Your task to perform on an android device: Show me productivity apps on the Play Store Image 0: 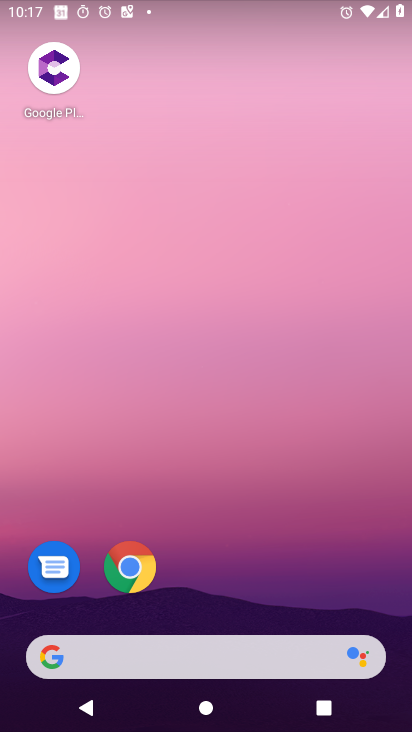
Step 0: drag from (187, 599) to (313, 0)
Your task to perform on an android device: Show me productivity apps on the Play Store Image 1: 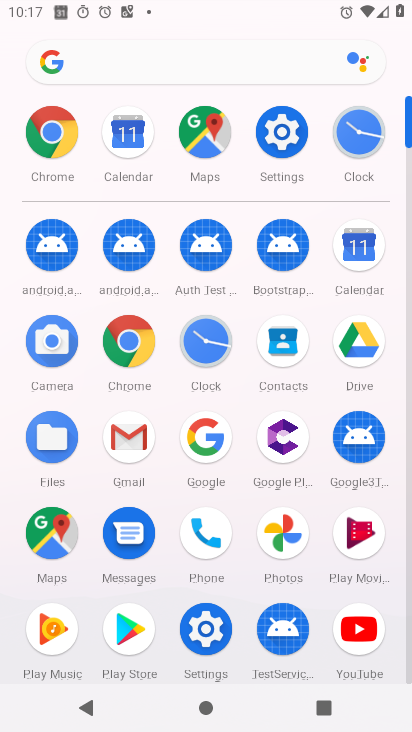
Step 1: click (120, 627)
Your task to perform on an android device: Show me productivity apps on the Play Store Image 2: 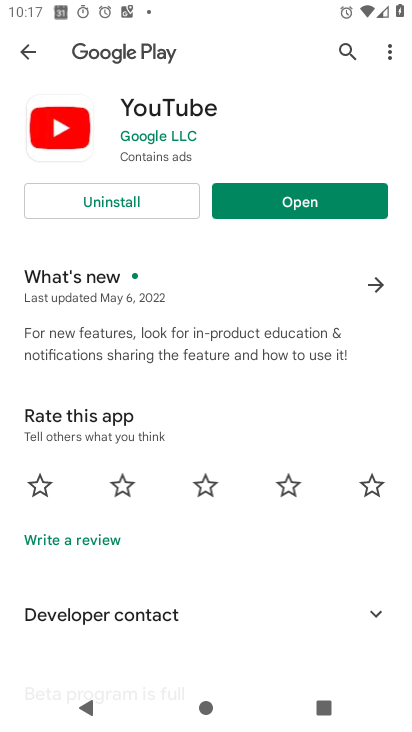
Step 2: click (30, 52)
Your task to perform on an android device: Show me productivity apps on the Play Store Image 3: 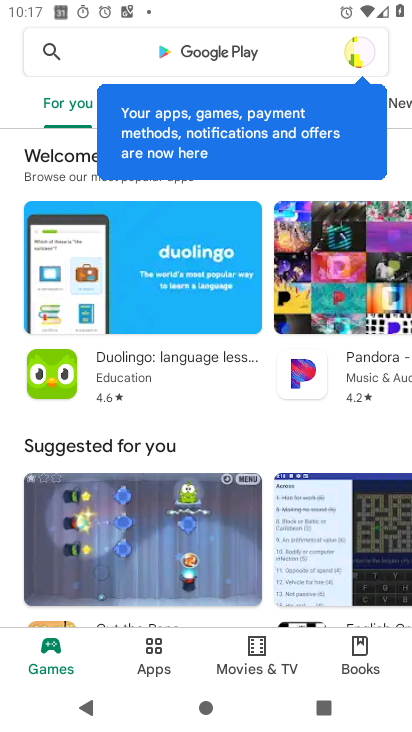
Step 3: click (153, 656)
Your task to perform on an android device: Show me productivity apps on the Play Store Image 4: 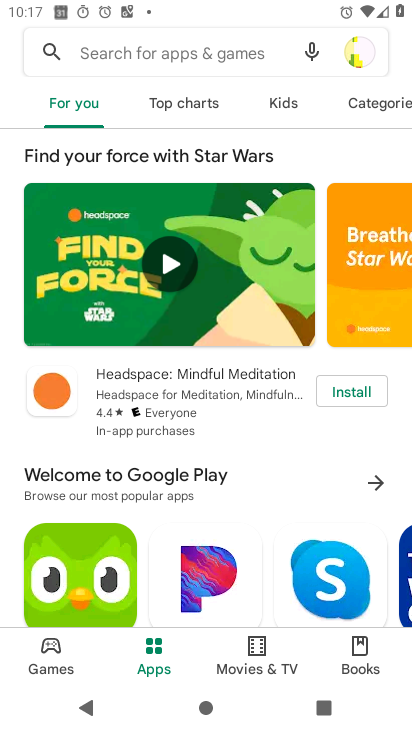
Step 4: click (364, 104)
Your task to perform on an android device: Show me productivity apps on the Play Store Image 5: 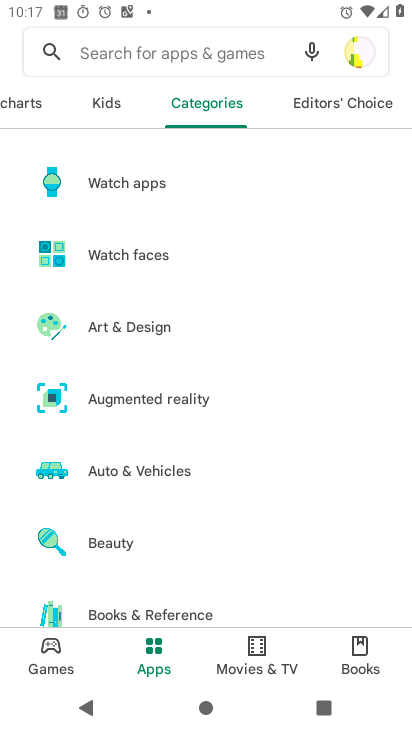
Step 5: drag from (137, 543) to (221, 0)
Your task to perform on an android device: Show me productivity apps on the Play Store Image 6: 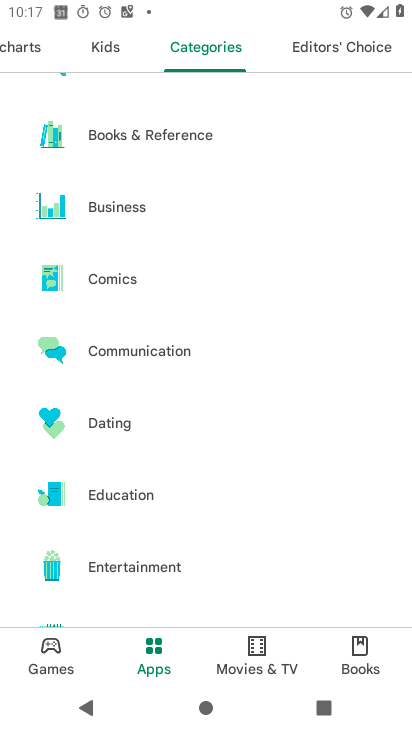
Step 6: drag from (152, 438) to (206, 107)
Your task to perform on an android device: Show me productivity apps on the Play Store Image 7: 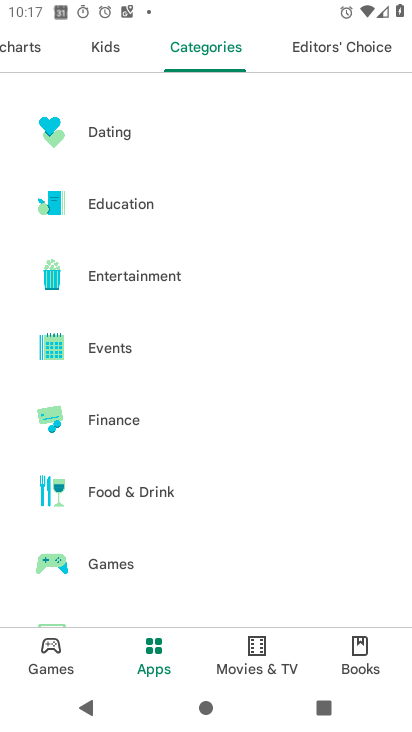
Step 7: drag from (93, 536) to (180, 55)
Your task to perform on an android device: Show me productivity apps on the Play Store Image 8: 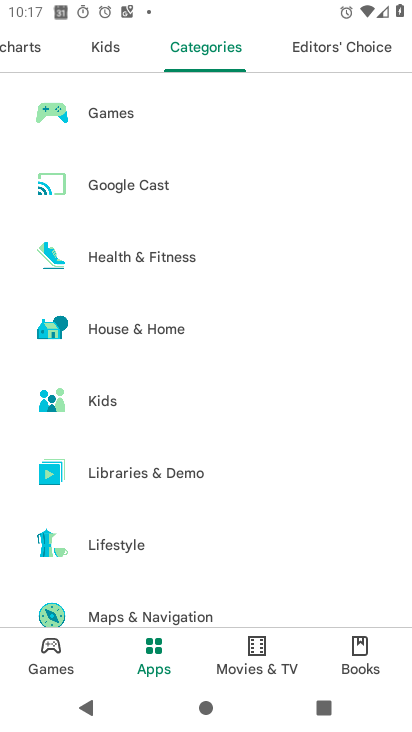
Step 8: drag from (126, 540) to (217, 27)
Your task to perform on an android device: Show me productivity apps on the Play Store Image 9: 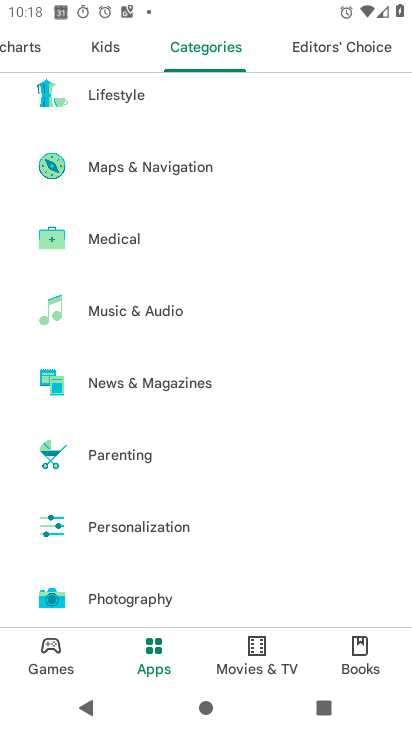
Step 9: drag from (124, 561) to (176, 252)
Your task to perform on an android device: Show me productivity apps on the Play Store Image 10: 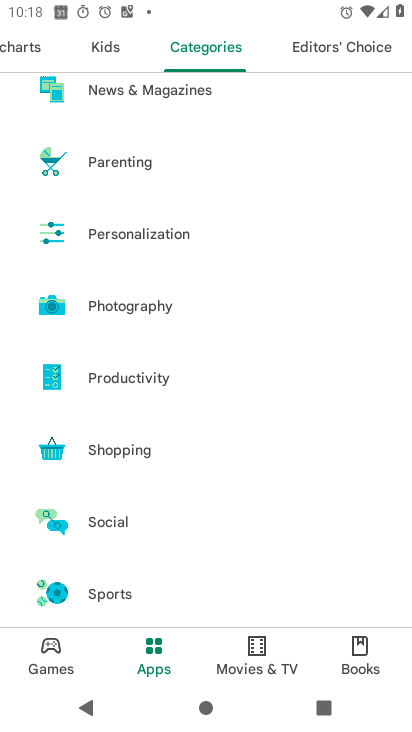
Step 10: click (133, 384)
Your task to perform on an android device: Show me productivity apps on the Play Store Image 11: 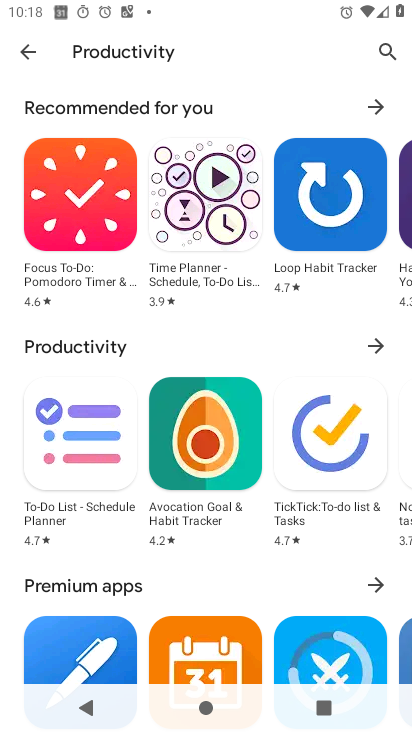
Step 11: task complete